Your task to perform on an android device: Open Android settings Image 0: 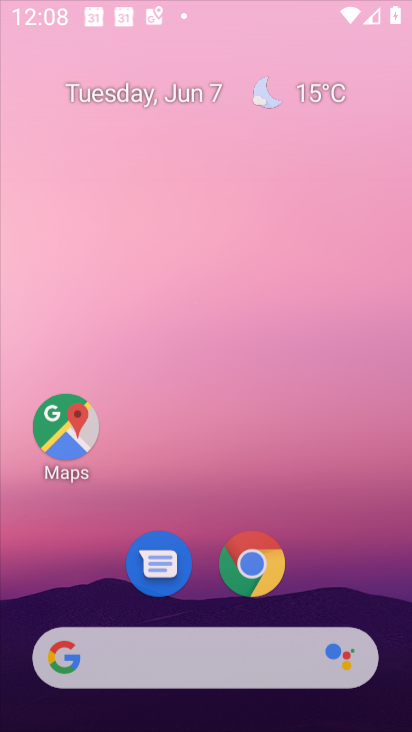
Step 0: press home button
Your task to perform on an android device: Open Android settings Image 1: 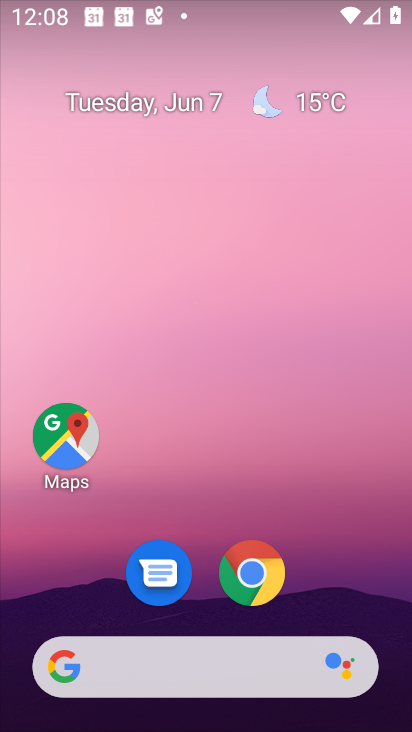
Step 1: drag from (218, 612) to (248, 215)
Your task to perform on an android device: Open Android settings Image 2: 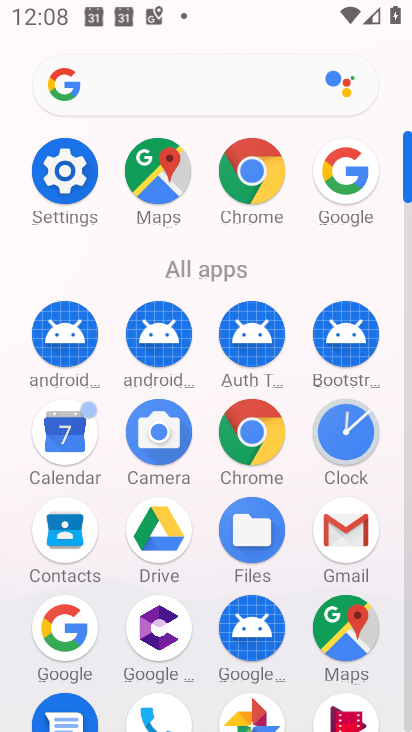
Step 2: click (66, 180)
Your task to perform on an android device: Open Android settings Image 3: 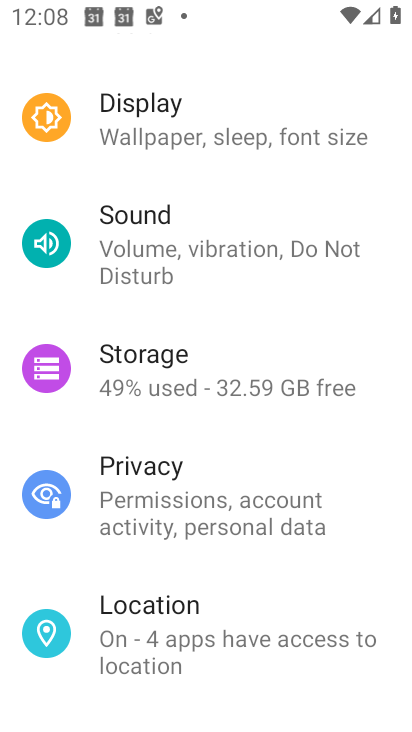
Step 3: task complete